Your task to perform on an android device: Go to Wikipedia Image 0: 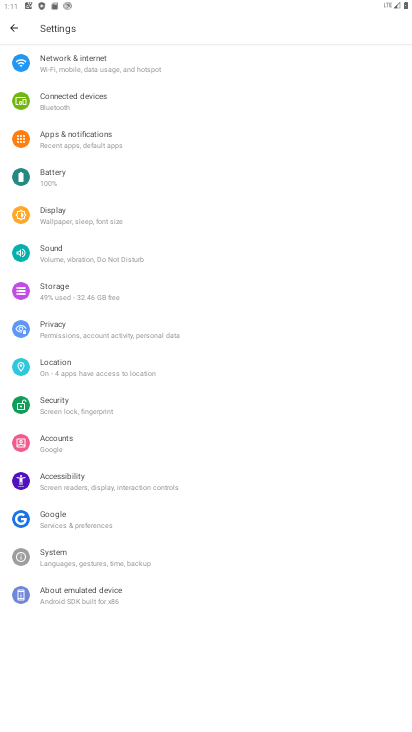
Step 0: press home button
Your task to perform on an android device: Go to Wikipedia Image 1: 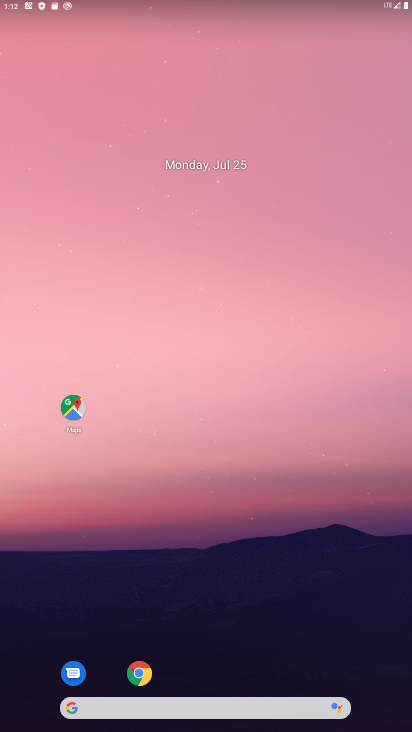
Step 1: click (138, 673)
Your task to perform on an android device: Go to Wikipedia Image 2: 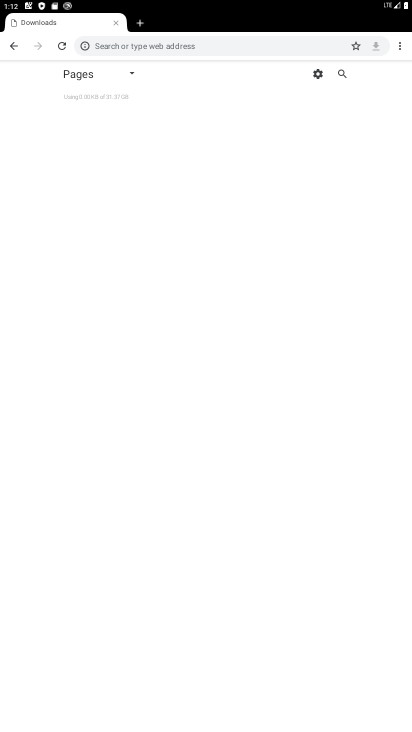
Step 2: click (151, 47)
Your task to perform on an android device: Go to Wikipedia Image 3: 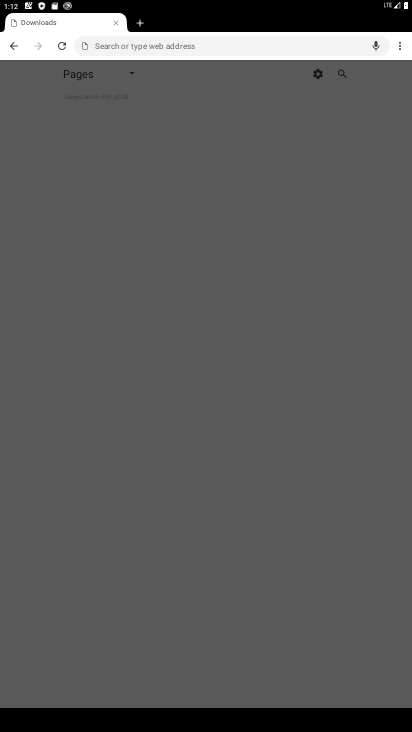
Step 3: type "wikipedia"
Your task to perform on an android device: Go to Wikipedia Image 4: 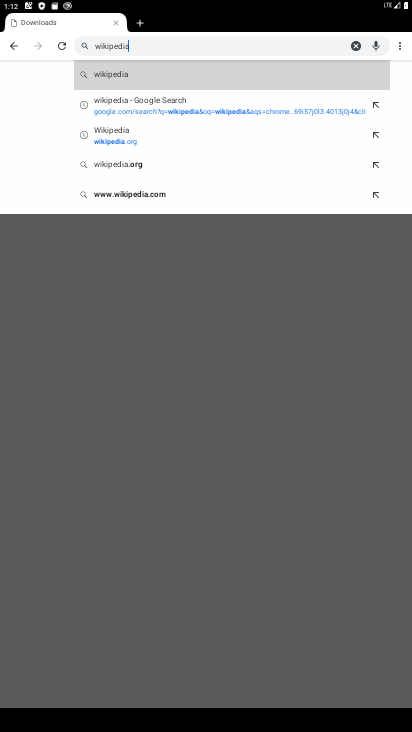
Step 4: click (115, 74)
Your task to perform on an android device: Go to Wikipedia Image 5: 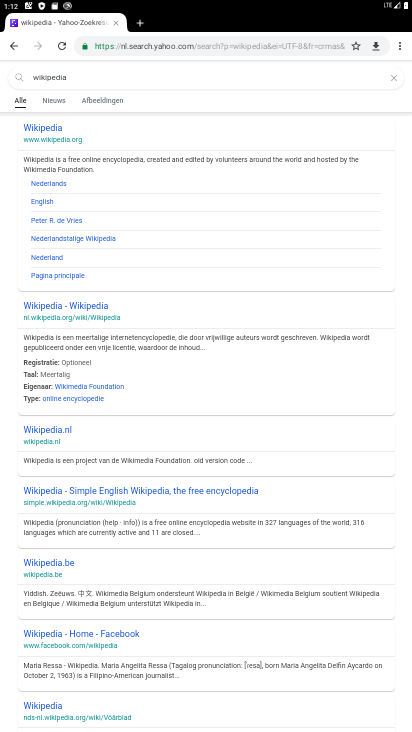
Step 5: click (47, 140)
Your task to perform on an android device: Go to Wikipedia Image 6: 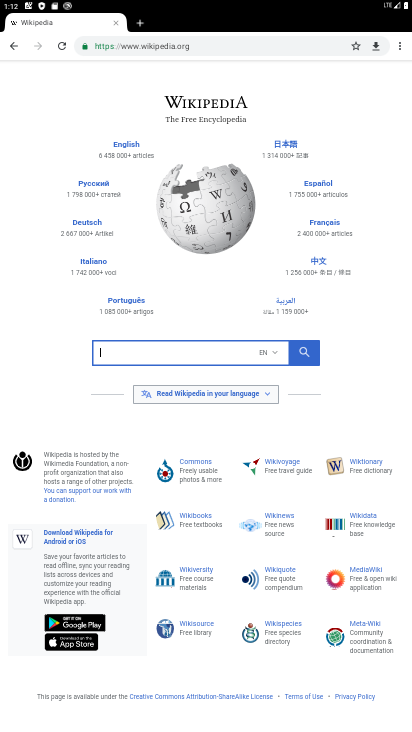
Step 6: task complete